Your task to perform on an android device: Go to privacy settings Image 0: 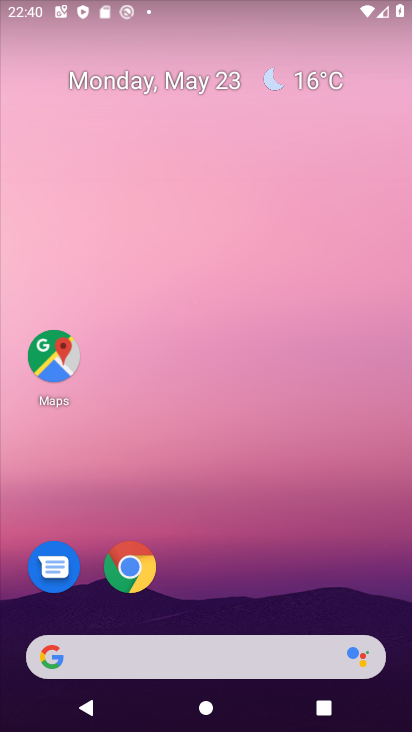
Step 0: drag from (191, 606) to (233, 266)
Your task to perform on an android device: Go to privacy settings Image 1: 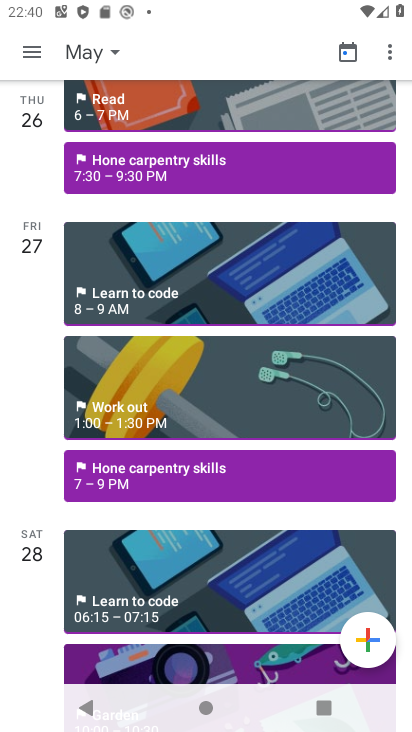
Step 1: press home button
Your task to perform on an android device: Go to privacy settings Image 2: 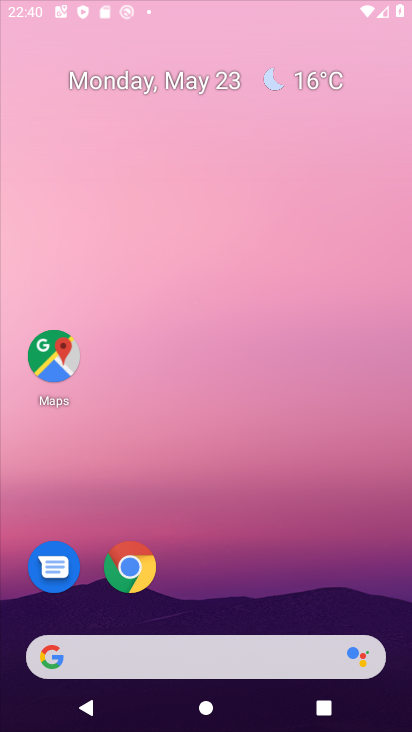
Step 2: drag from (197, 650) to (199, 75)
Your task to perform on an android device: Go to privacy settings Image 3: 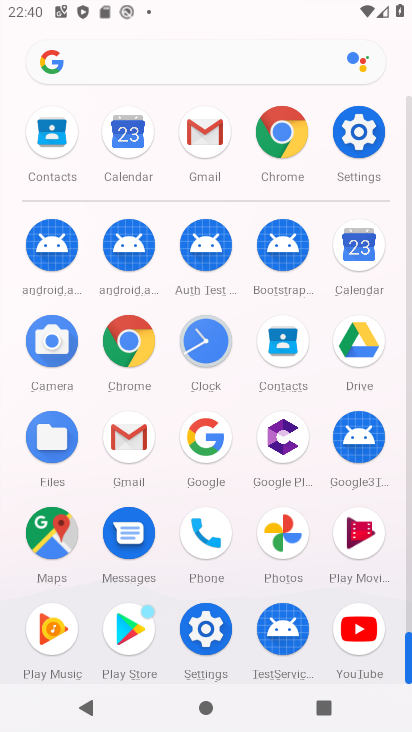
Step 3: click (363, 126)
Your task to perform on an android device: Go to privacy settings Image 4: 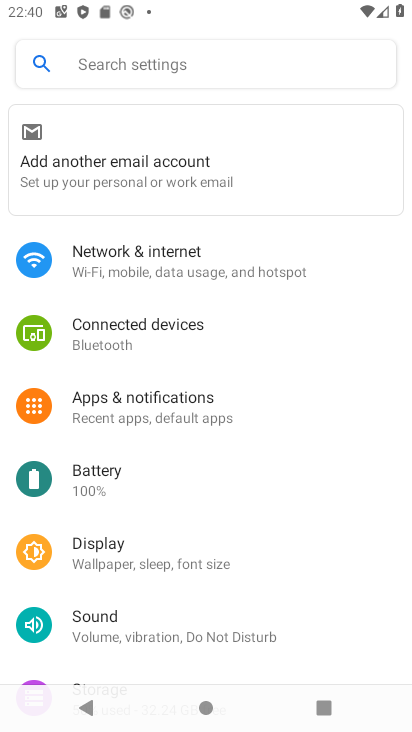
Step 4: drag from (155, 540) to (231, 91)
Your task to perform on an android device: Go to privacy settings Image 5: 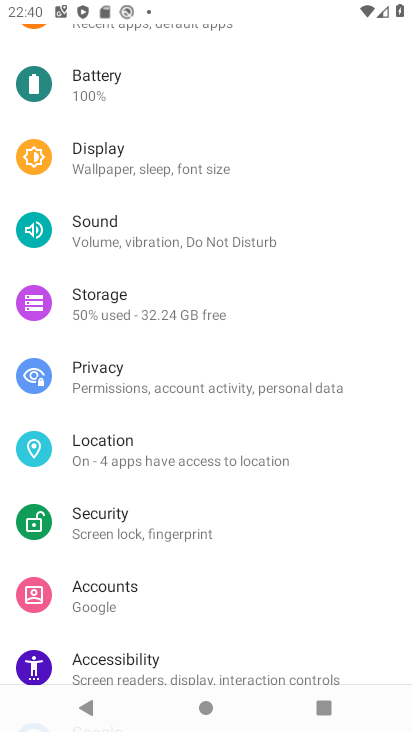
Step 5: click (141, 367)
Your task to perform on an android device: Go to privacy settings Image 6: 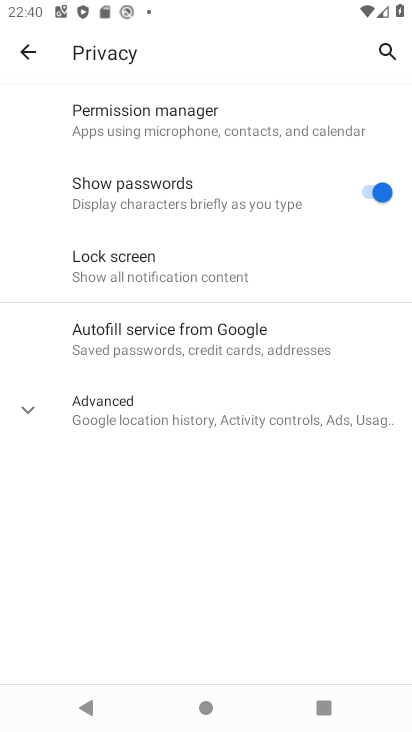
Step 6: task complete